Your task to perform on an android device: search for starred emails in the gmail app Image 0: 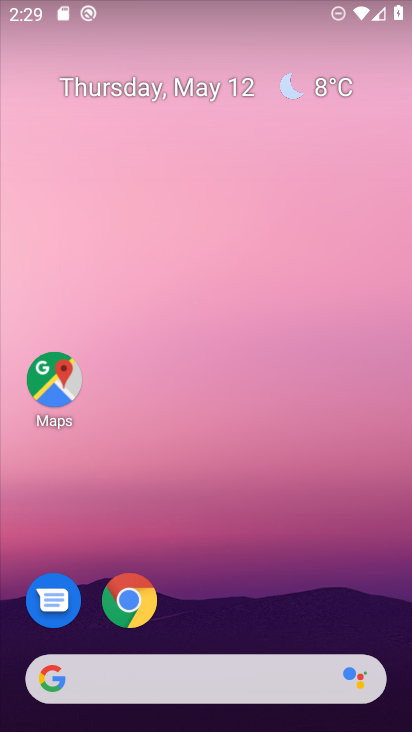
Step 0: drag from (203, 692) to (207, 213)
Your task to perform on an android device: search for starred emails in the gmail app Image 1: 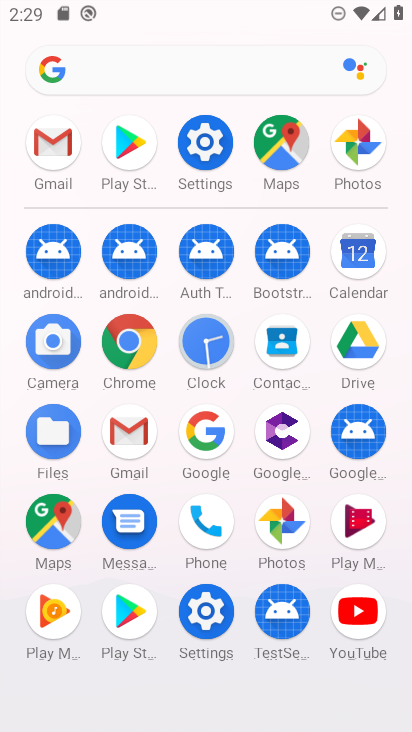
Step 1: click (120, 431)
Your task to perform on an android device: search for starred emails in the gmail app Image 2: 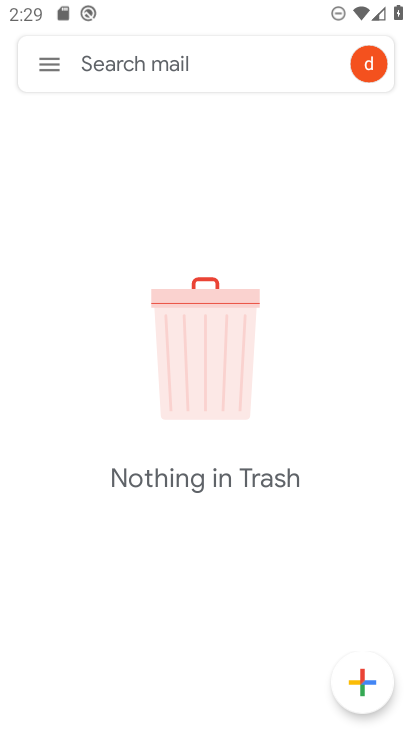
Step 2: click (49, 65)
Your task to perform on an android device: search for starred emails in the gmail app Image 3: 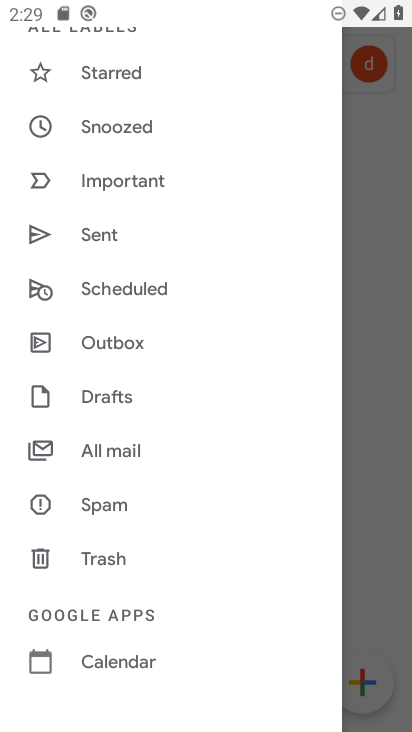
Step 3: click (105, 69)
Your task to perform on an android device: search for starred emails in the gmail app Image 4: 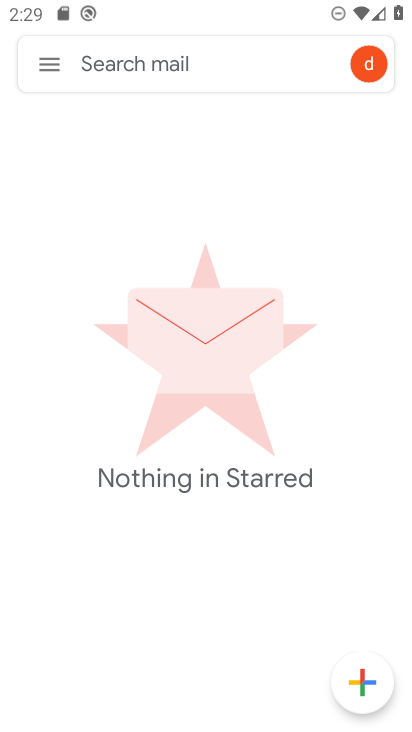
Step 4: task complete